Your task to perform on an android device: Open battery settings Image 0: 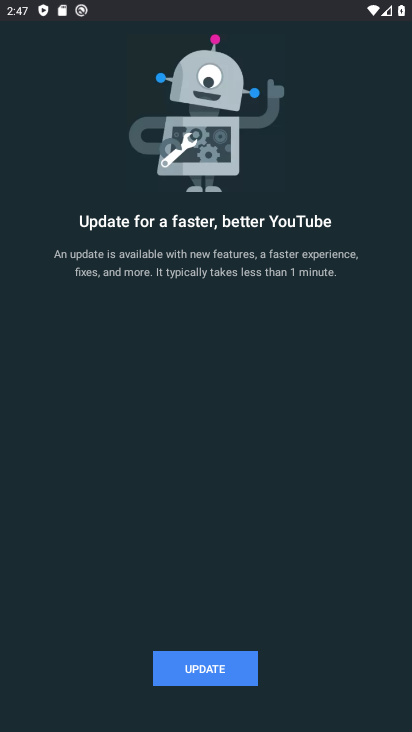
Step 0: press home button
Your task to perform on an android device: Open battery settings Image 1: 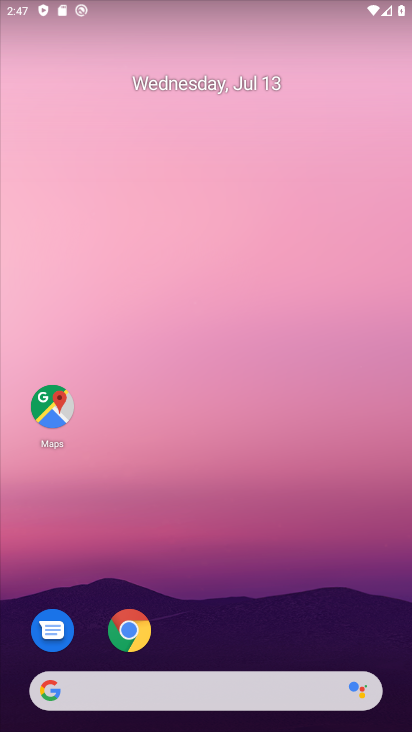
Step 1: drag from (122, 73) to (199, 49)
Your task to perform on an android device: Open battery settings Image 2: 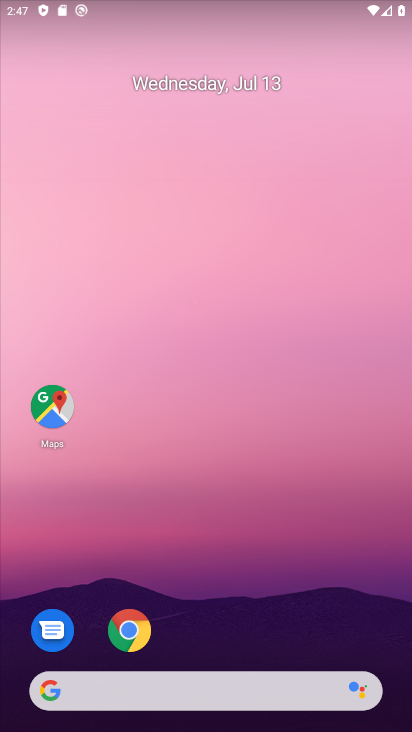
Step 2: drag from (97, 401) to (138, 206)
Your task to perform on an android device: Open battery settings Image 3: 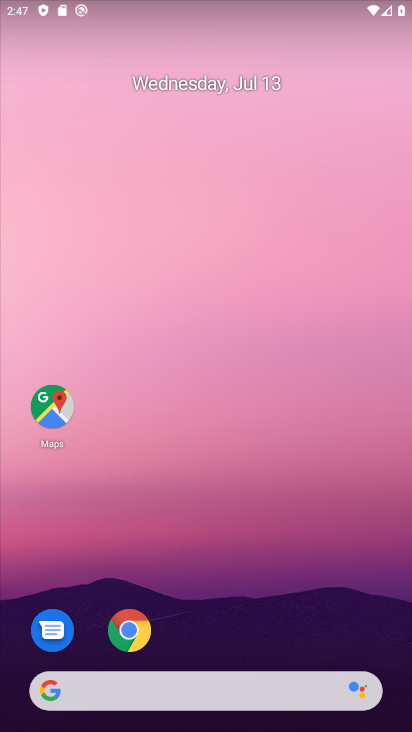
Step 3: drag from (25, 697) to (195, 1)
Your task to perform on an android device: Open battery settings Image 4: 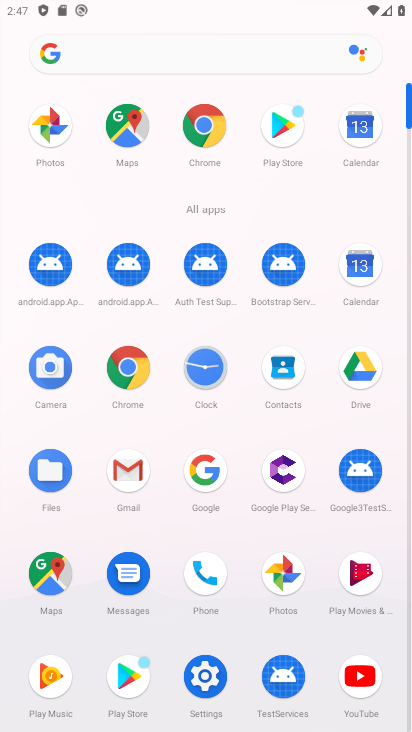
Step 4: click (206, 675)
Your task to perform on an android device: Open battery settings Image 5: 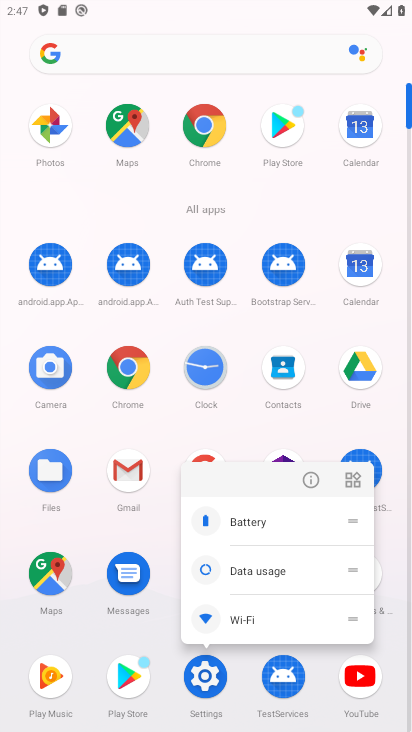
Step 5: click (209, 685)
Your task to perform on an android device: Open battery settings Image 6: 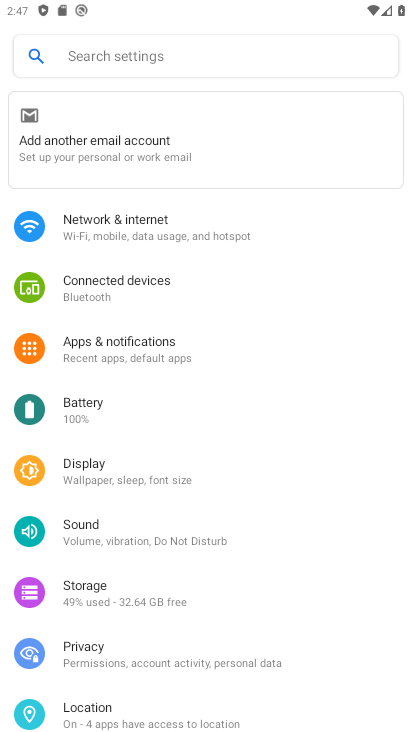
Step 6: click (106, 422)
Your task to perform on an android device: Open battery settings Image 7: 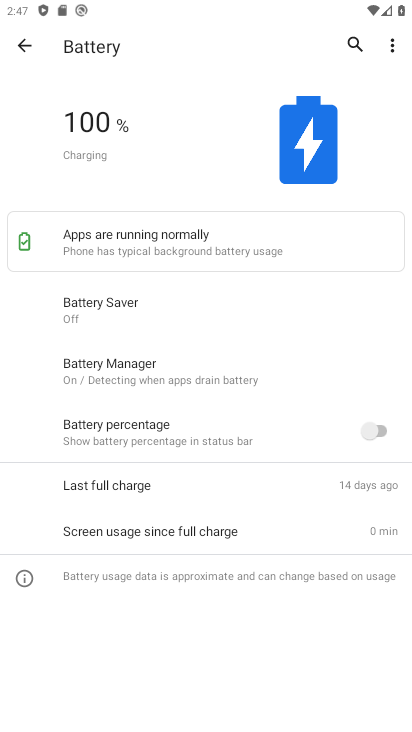
Step 7: task complete